Your task to perform on an android device: Open the calendar app, open the side menu, and click the "Day" option Image 0: 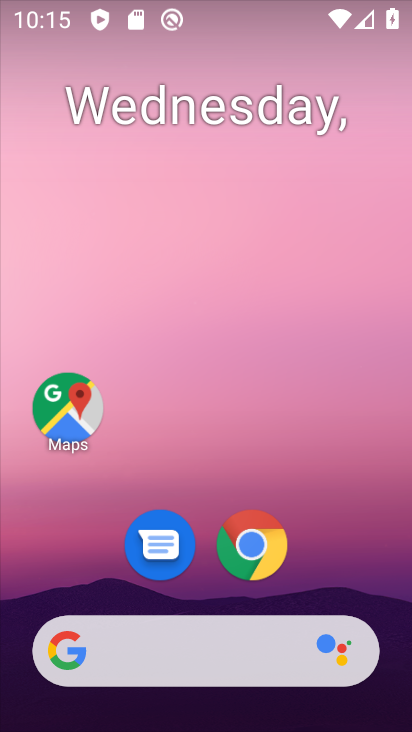
Step 0: drag from (208, 574) to (222, 147)
Your task to perform on an android device: Open the calendar app, open the side menu, and click the "Day" option Image 1: 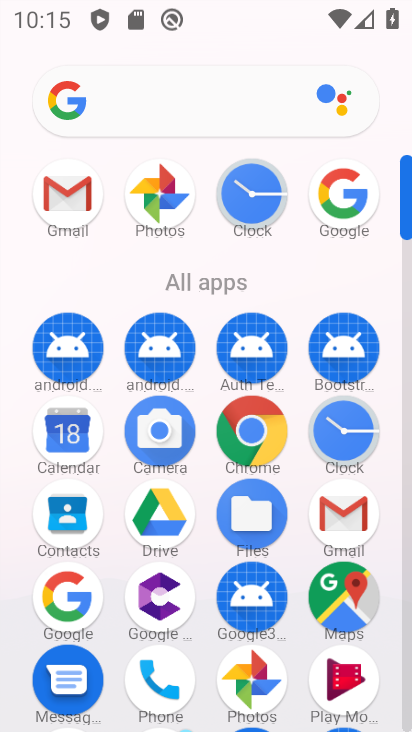
Step 1: click (81, 448)
Your task to perform on an android device: Open the calendar app, open the side menu, and click the "Day" option Image 2: 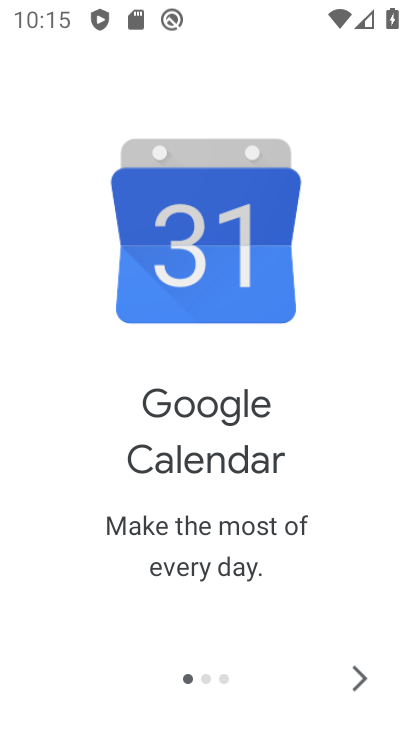
Step 2: click (353, 674)
Your task to perform on an android device: Open the calendar app, open the side menu, and click the "Day" option Image 3: 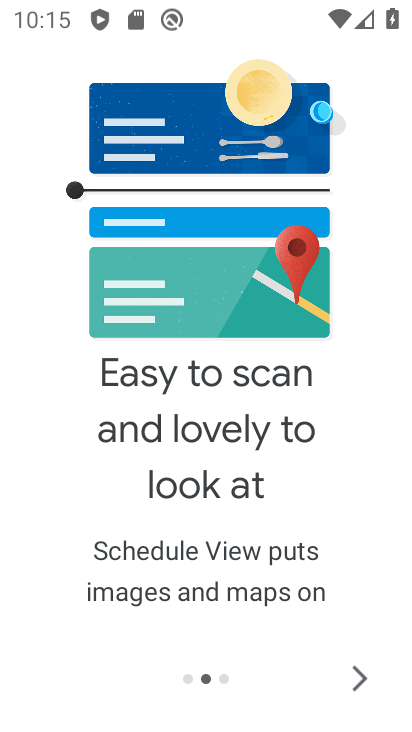
Step 3: click (354, 673)
Your task to perform on an android device: Open the calendar app, open the side menu, and click the "Day" option Image 4: 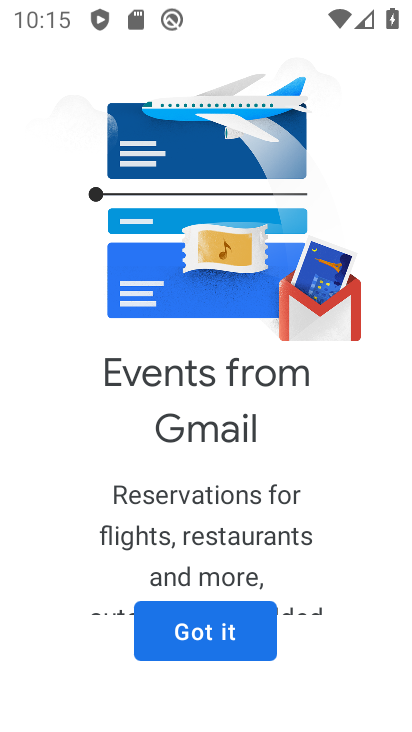
Step 4: click (244, 631)
Your task to perform on an android device: Open the calendar app, open the side menu, and click the "Day" option Image 5: 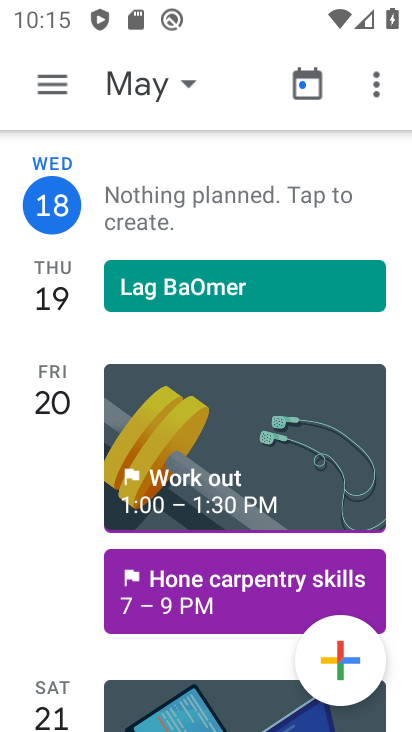
Step 5: click (55, 85)
Your task to perform on an android device: Open the calendar app, open the side menu, and click the "Day" option Image 6: 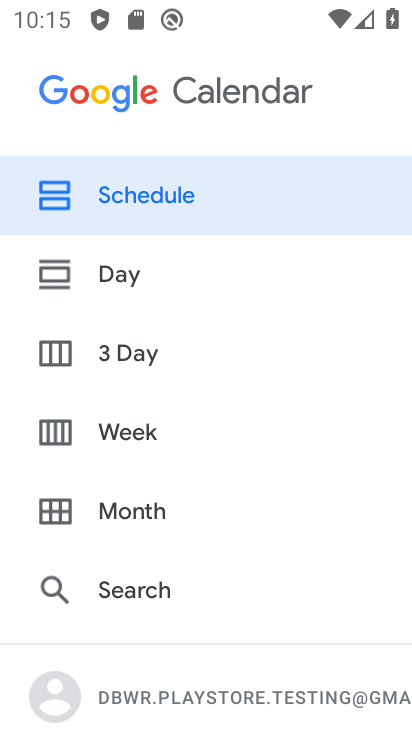
Step 6: click (141, 287)
Your task to perform on an android device: Open the calendar app, open the side menu, and click the "Day" option Image 7: 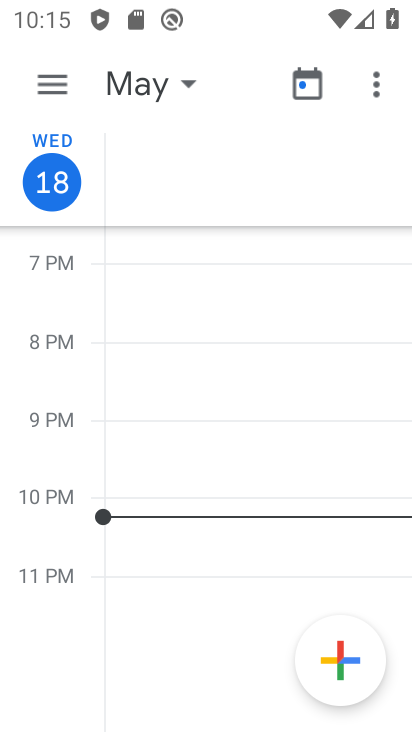
Step 7: task complete